Your task to perform on an android device: Go to notification settings Image 0: 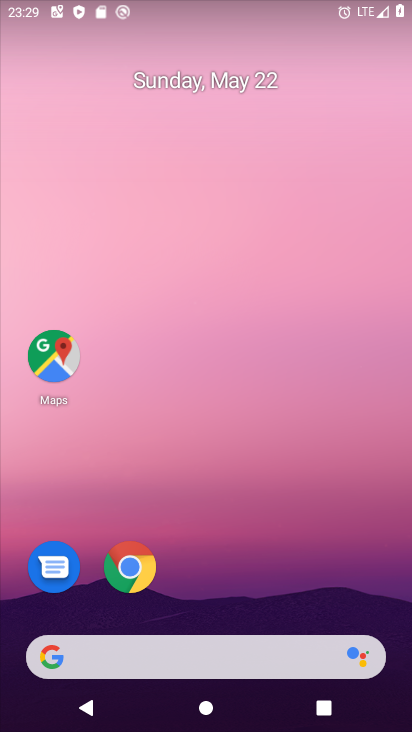
Step 0: drag from (285, 562) to (252, 23)
Your task to perform on an android device: Go to notification settings Image 1: 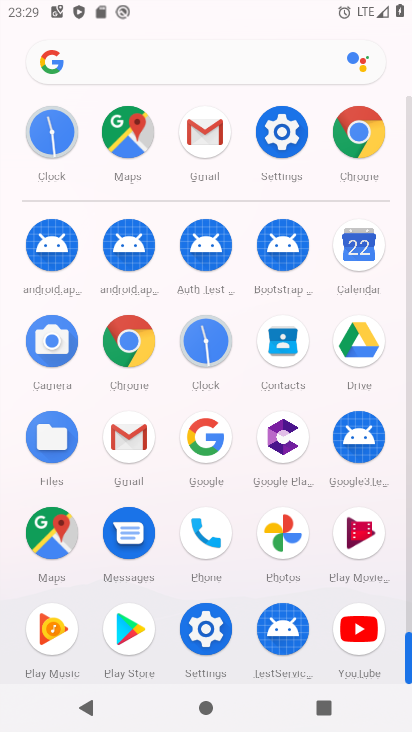
Step 1: click (204, 627)
Your task to perform on an android device: Go to notification settings Image 2: 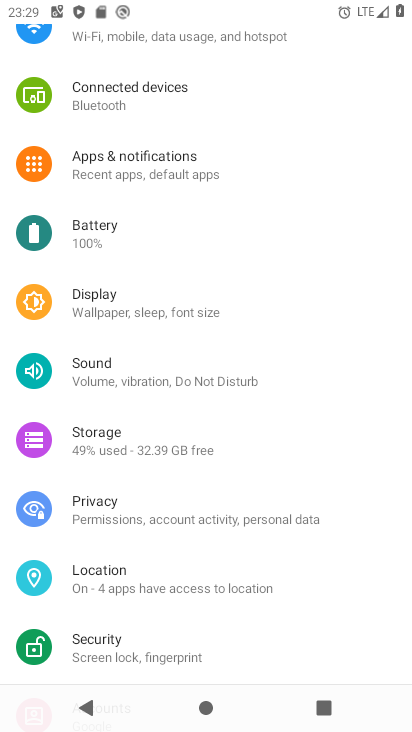
Step 2: drag from (193, 607) to (230, 267)
Your task to perform on an android device: Go to notification settings Image 3: 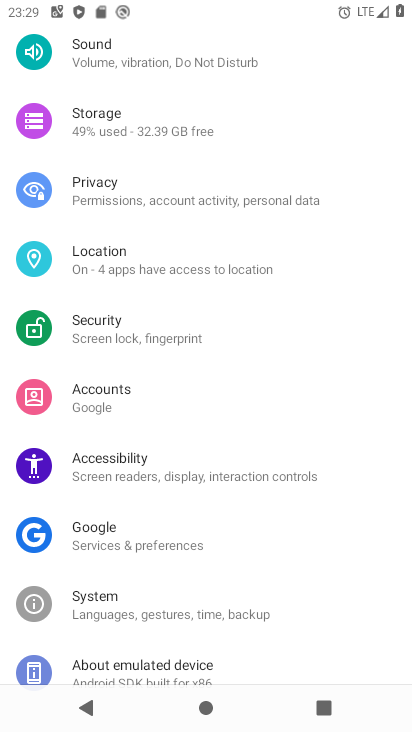
Step 3: drag from (247, 195) to (253, 639)
Your task to perform on an android device: Go to notification settings Image 4: 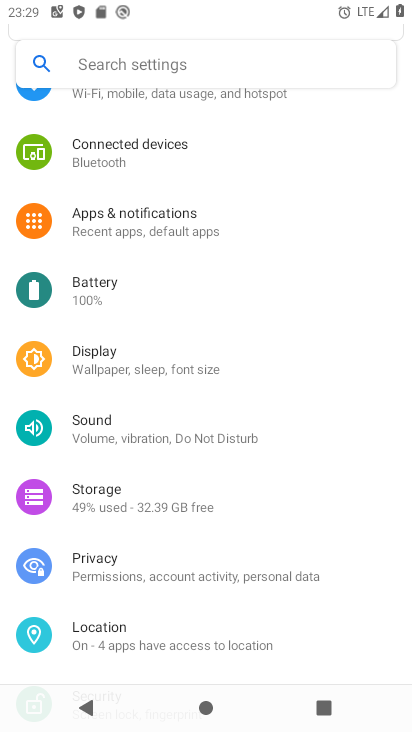
Step 4: click (136, 219)
Your task to perform on an android device: Go to notification settings Image 5: 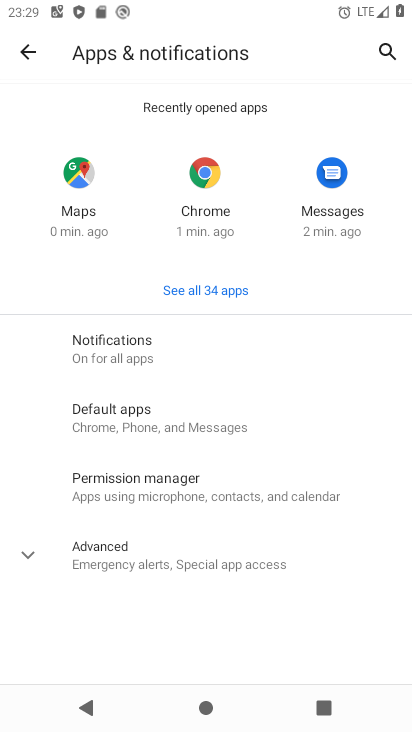
Step 5: click (53, 562)
Your task to perform on an android device: Go to notification settings Image 6: 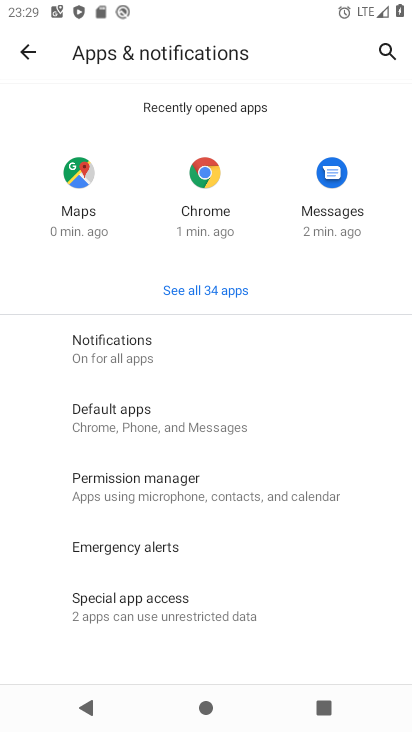
Step 6: task complete